Your task to perform on an android device: Go to display settings Image 0: 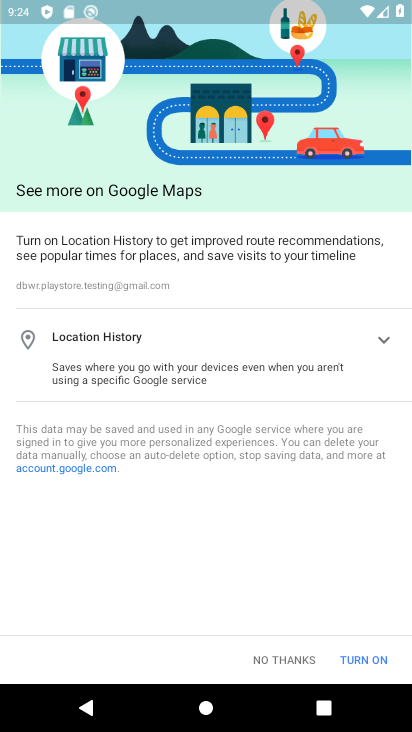
Step 0: press home button
Your task to perform on an android device: Go to display settings Image 1: 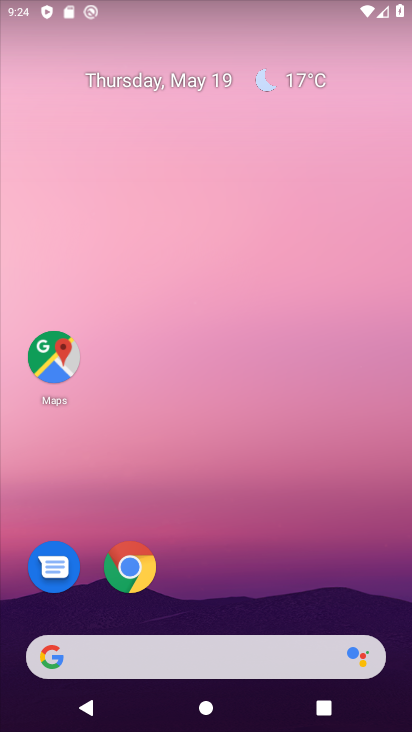
Step 1: drag from (334, 616) to (310, 51)
Your task to perform on an android device: Go to display settings Image 2: 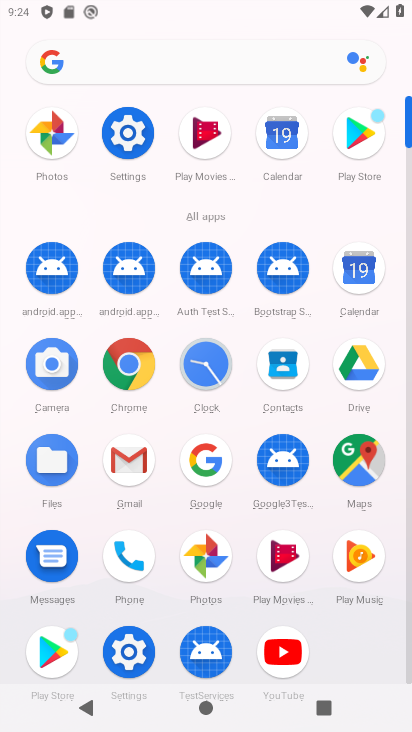
Step 2: click (124, 635)
Your task to perform on an android device: Go to display settings Image 3: 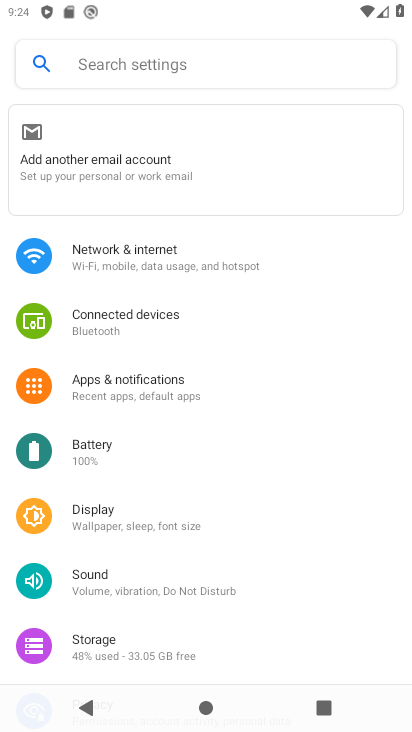
Step 3: click (139, 531)
Your task to perform on an android device: Go to display settings Image 4: 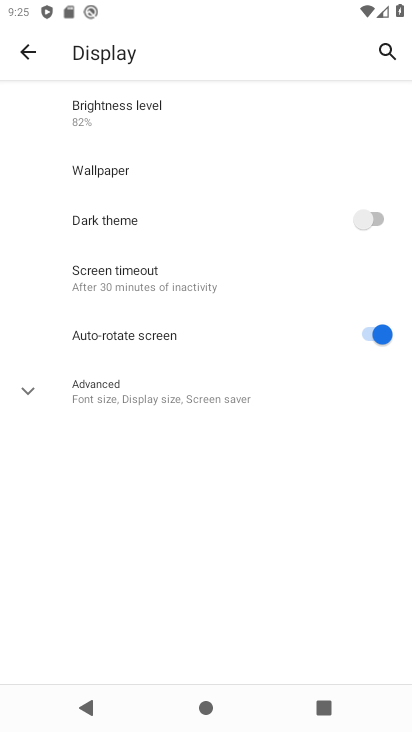
Step 4: task complete